Your task to perform on an android device: Open Google Image 0: 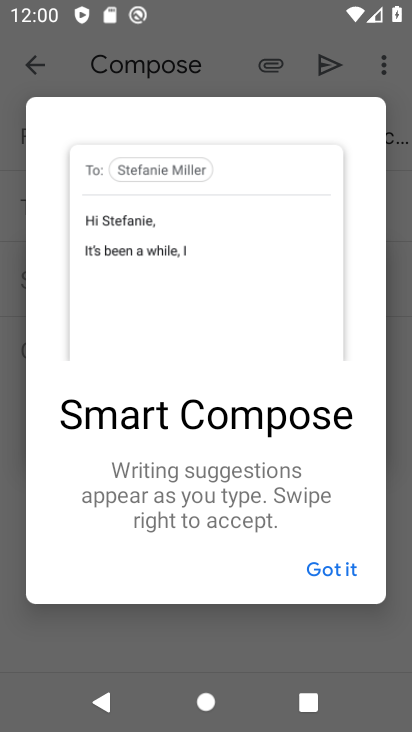
Step 0: press back button
Your task to perform on an android device: Open Google Image 1: 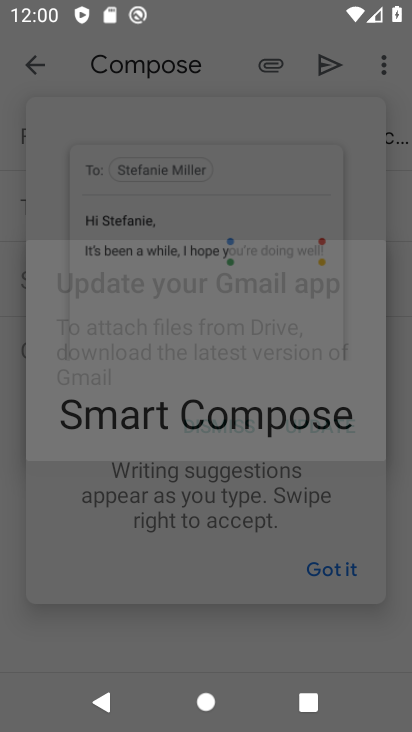
Step 1: press home button
Your task to perform on an android device: Open Google Image 2: 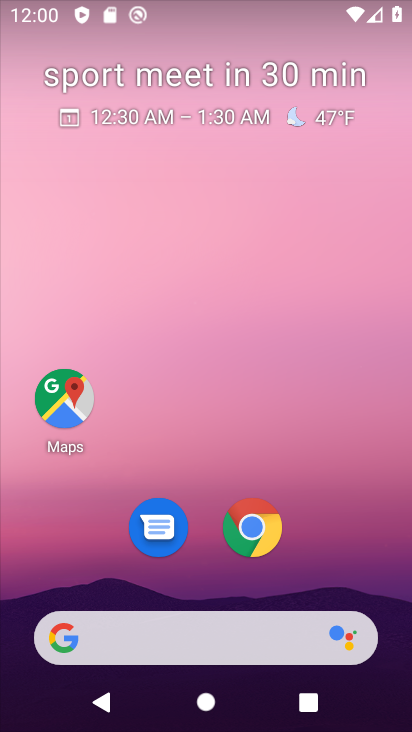
Step 2: drag from (154, 611) to (258, 35)
Your task to perform on an android device: Open Google Image 3: 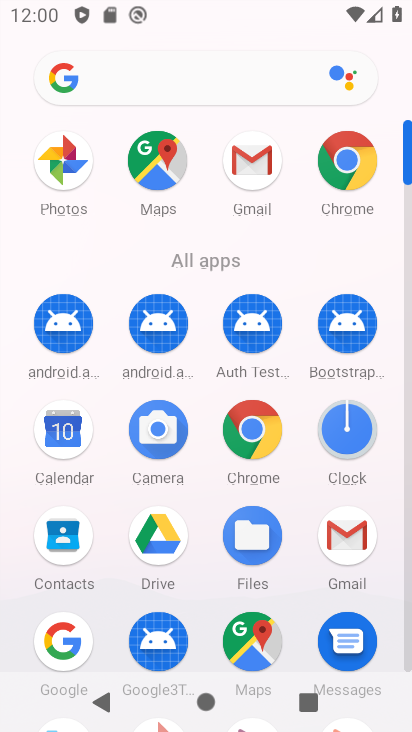
Step 3: click (68, 655)
Your task to perform on an android device: Open Google Image 4: 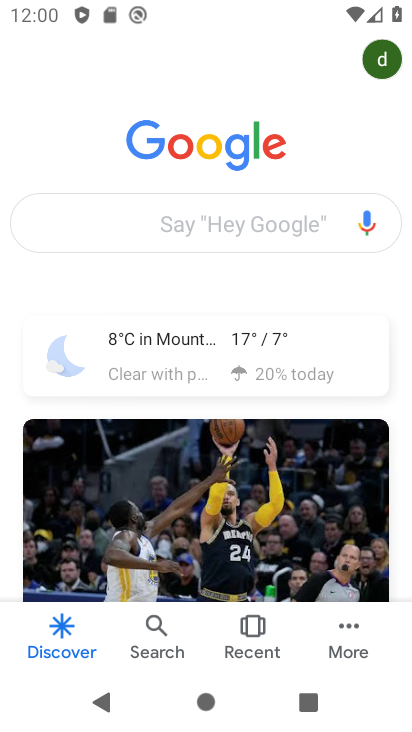
Step 4: task complete